Your task to perform on an android device: Check the weather Image 0: 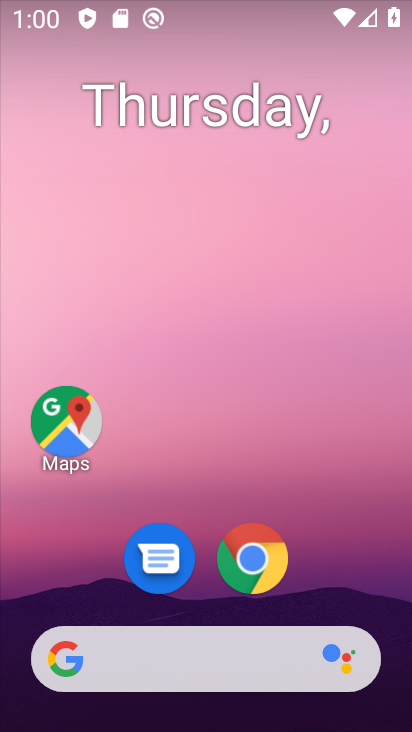
Step 0: drag from (332, 575) to (282, 165)
Your task to perform on an android device: Check the weather Image 1: 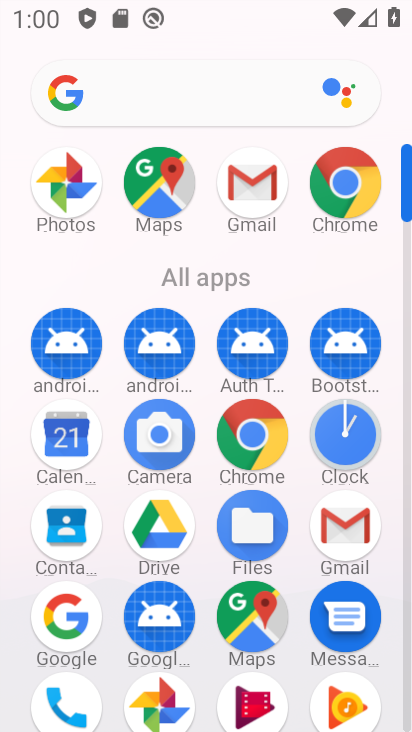
Step 1: click (350, 186)
Your task to perform on an android device: Check the weather Image 2: 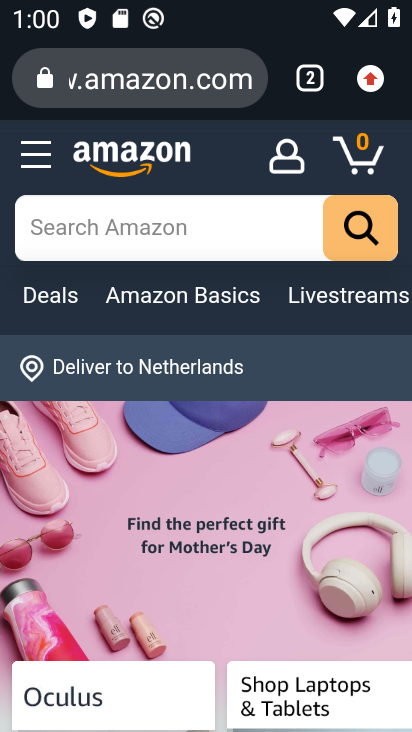
Step 2: click (235, 89)
Your task to perform on an android device: Check the weather Image 3: 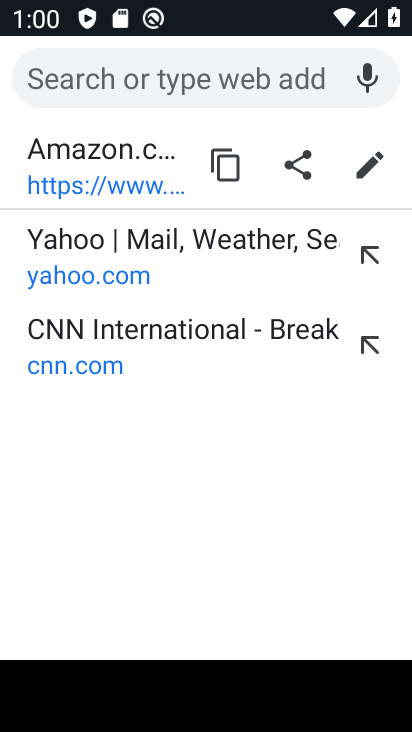
Step 3: click (215, 78)
Your task to perform on an android device: Check the weather Image 4: 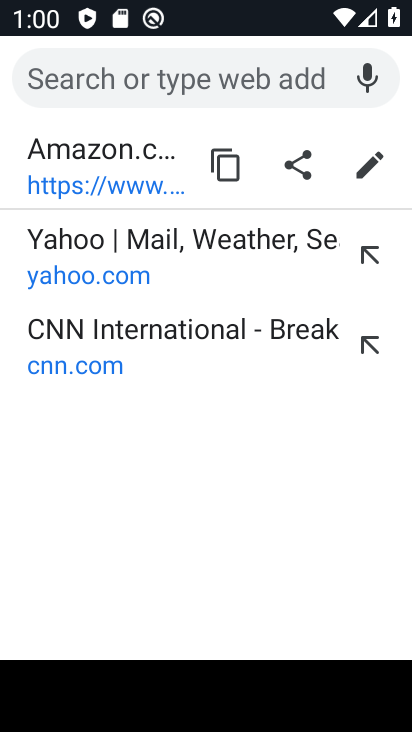
Step 4: click (215, 78)
Your task to perform on an android device: Check the weather Image 5: 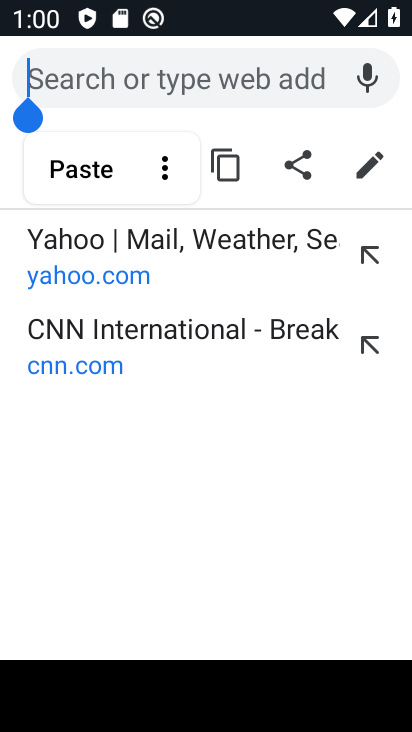
Step 5: type " weather"
Your task to perform on an android device: Check the weather Image 6: 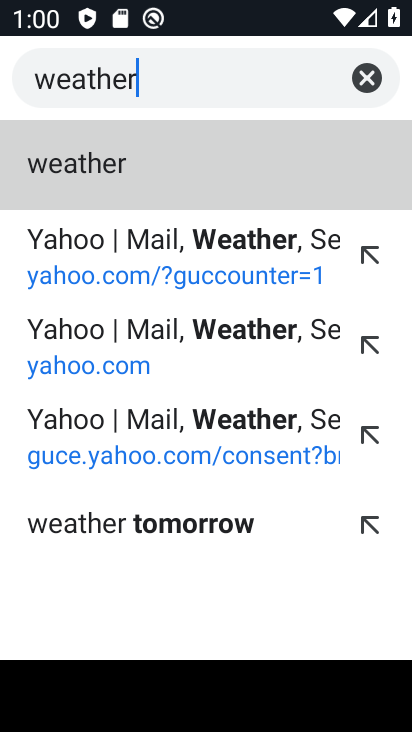
Step 6: click (149, 150)
Your task to perform on an android device: Check the weather Image 7: 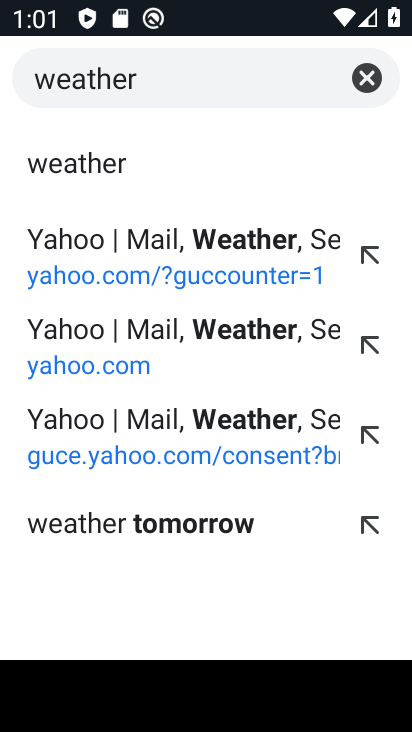
Step 7: click (122, 165)
Your task to perform on an android device: Check the weather Image 8: 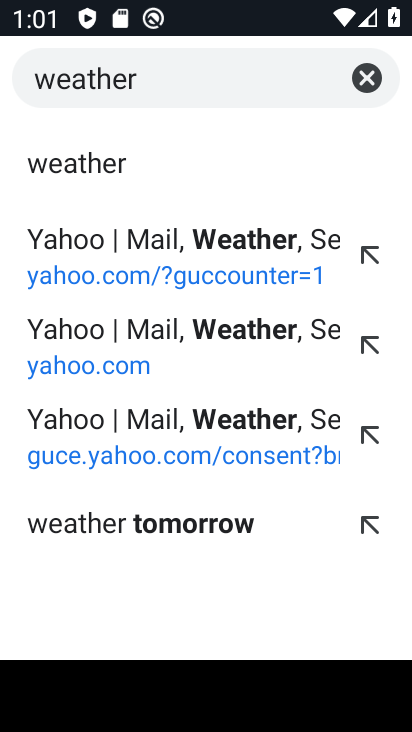
Step 8: click (69, 166)
Your task to perform on an android device: Check the weather Image 9: 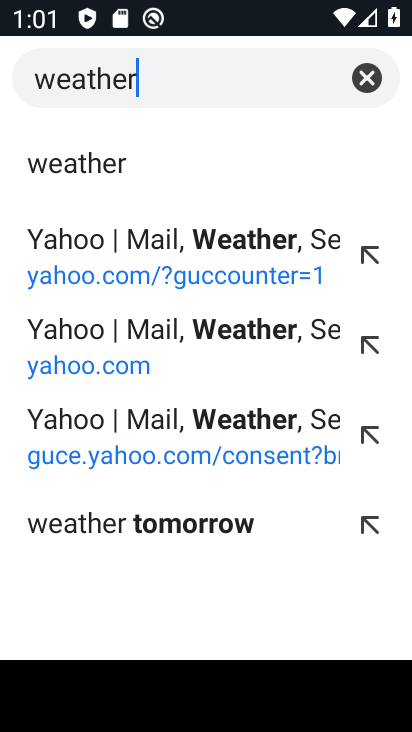
Step 9: click (99, 165)
Your task to perform on an android device: Check the weather Image 10: 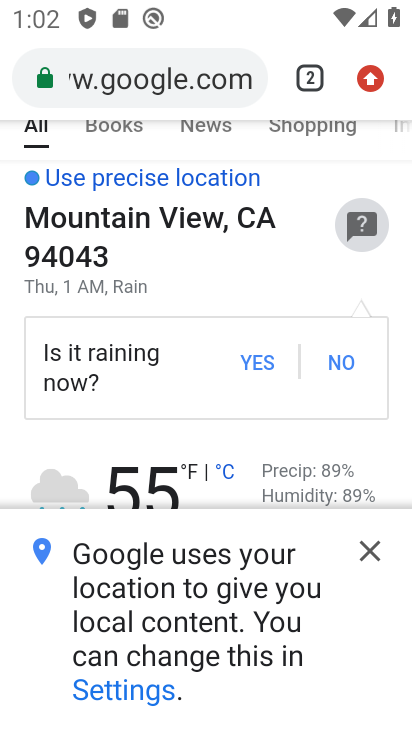
Step 10: task complete